Your task to perform on an android device: turn on the 24-hour format for clock Image 0: 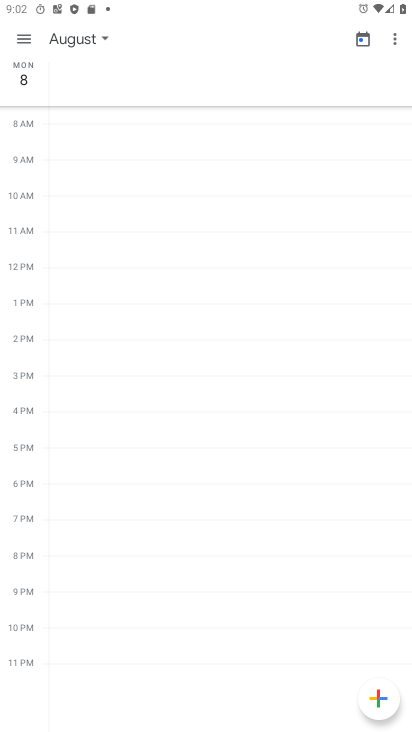
Step 0: press home button
Your task to perform on an android device: turn on the 24-hour format for clock Image 1: 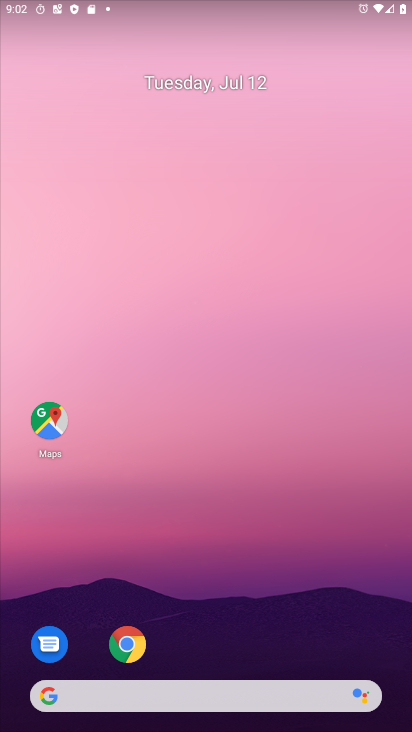
Step 1: drag from (6, 711) to (315, 19)
Your task to perform on an android device: turn on the 24-hour format for clock Image 2: 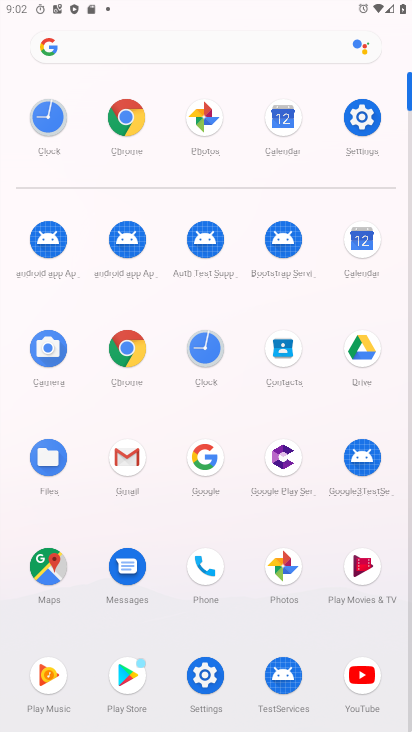
Step 2: click (201, 342)
Your task to perform on an android device: turn on the 24-hour format for clock Image 3: 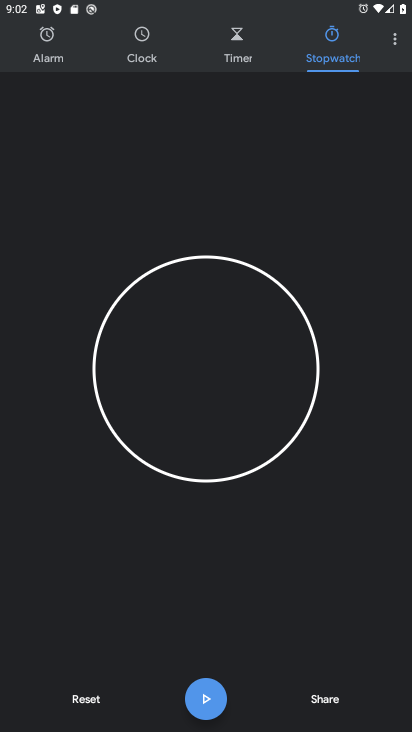
Step 3: click (142, 45)
Your task to perform on an android device: turn on the 24-hour format for clock Image 4: 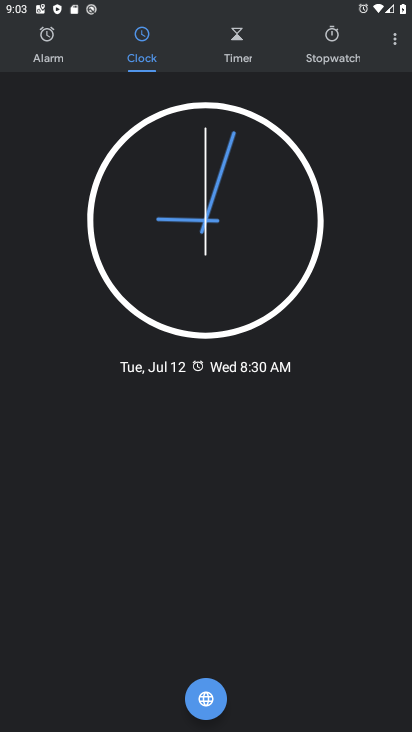
Step 4: click (389, 35)
Your task to perform on an android device: turn on the 24-hour format for clock Image 5: 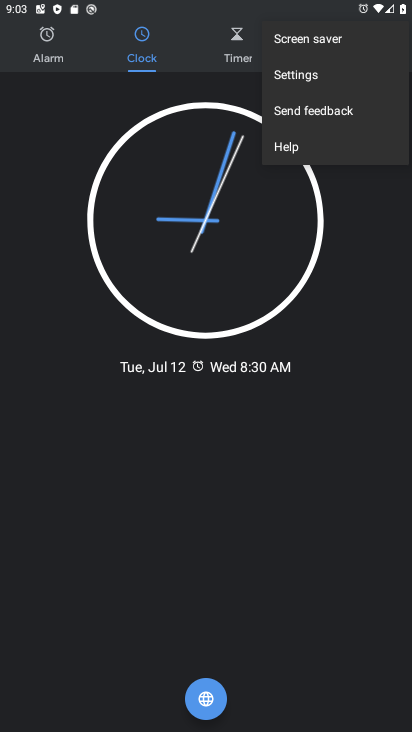
Step 5: click (295, 62)
Your task to perform on an android device: turn on the 24-hour format for clock Image 6: 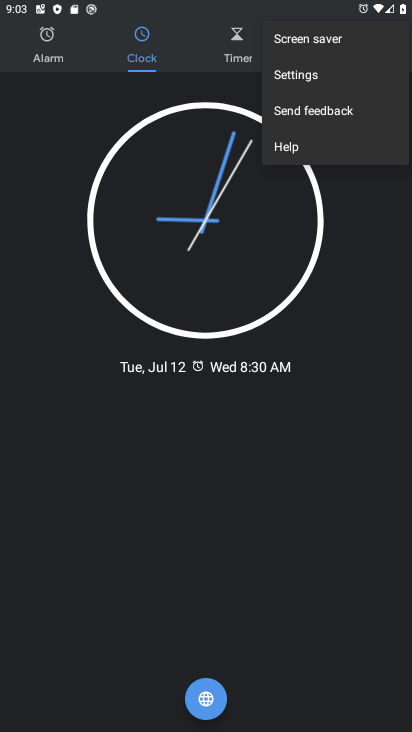
Step 6: click (307, 78)
Your task to perform on an android device: turn on the 24-hour format for clock Image 7: 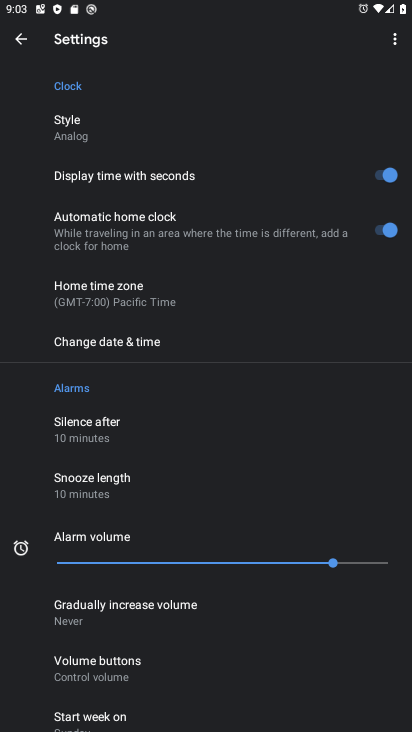
Step 7: click (112, 348)
Your task to perform on an android device: turn on the 24-hour format for clock Image 8: 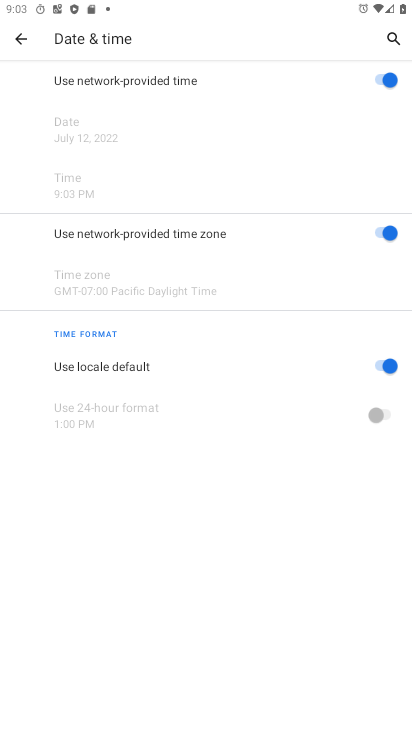
Step 8: click (387, 372)
Your task to perform on an android device: turn on the 24-hour format for clock Image 9: 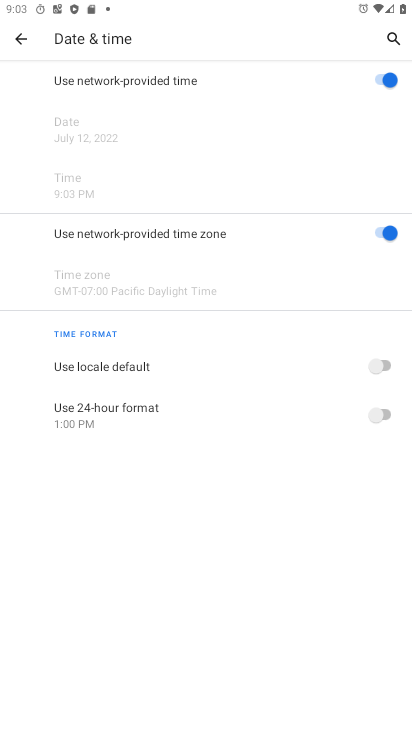
Step 9: click (376, 411)
Your task to perform on an android device: turn on the 24-hour format for clock Image 10: 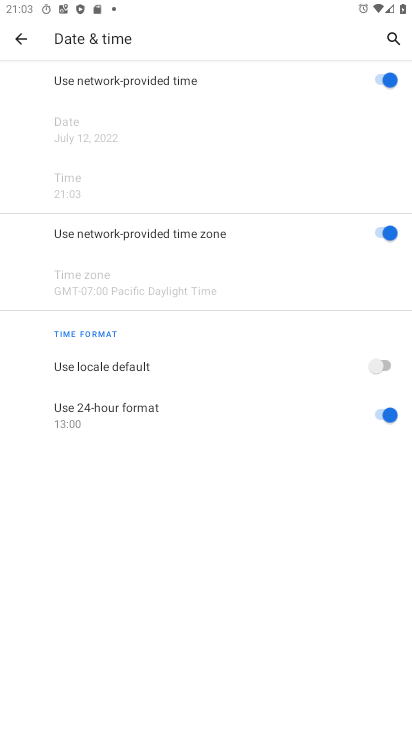
Step 10: task complete